Your task to perform on an android device: toggle sleep mode Image 0: 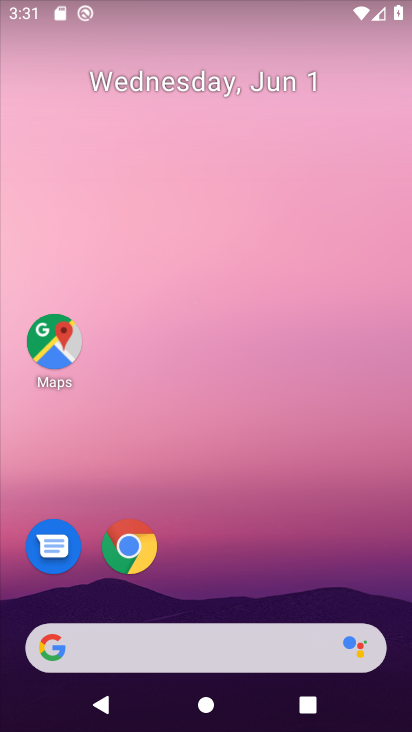
Step 0: drag from (339, 606) to (310, 0)
Your task to perform on an android device: toggle sleep mode Image 1: 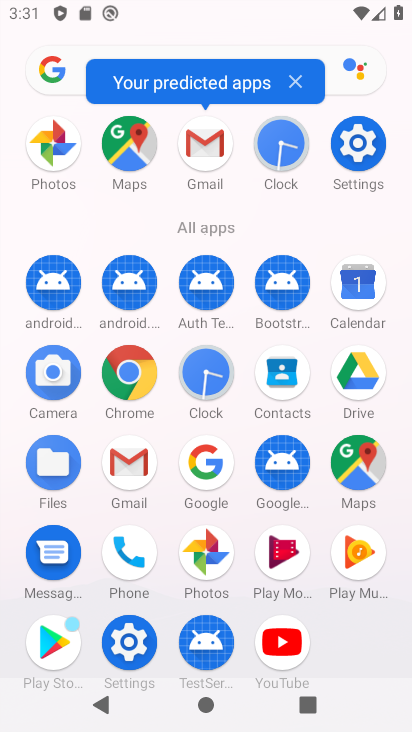
Step 1: drag from (277, 5) to (269, 511)
Your task to perform on an android device: toggle sleep mode Image 2: 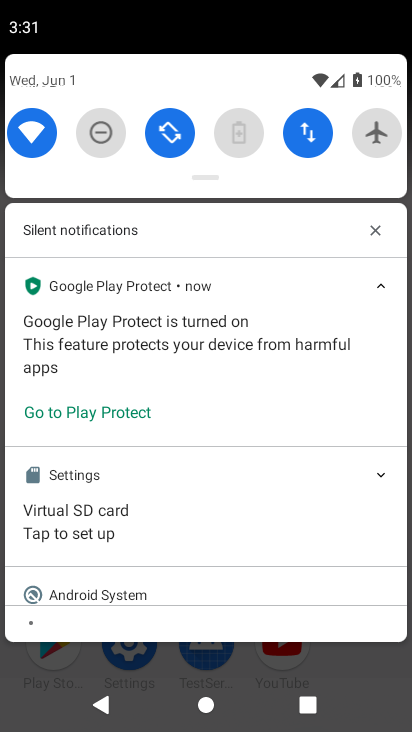
Step 2: drag from (195, 182) to (178, 548)
Your task to perform on an android device: toggle sleep mode Image 3: 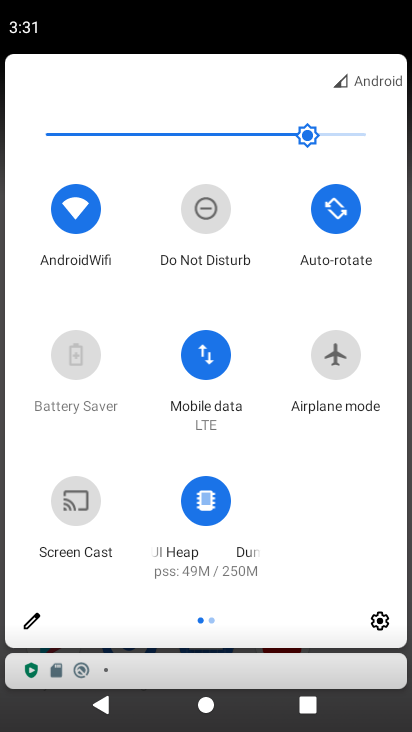
Step 3: click (31, 621)
Your task to perform on an android device: toggle sleep mode Image 4: 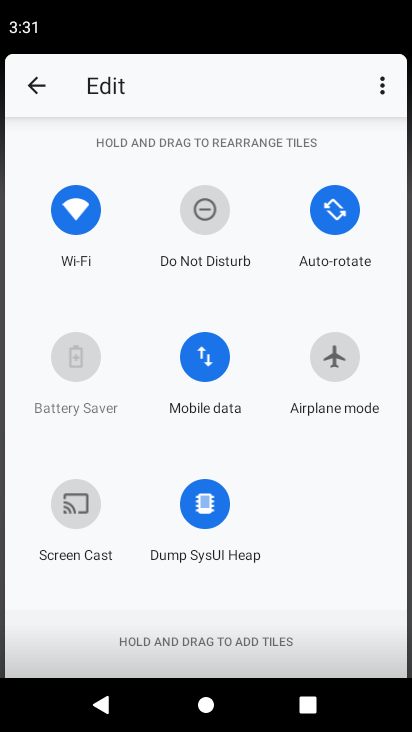
Step 4: task complete